Your task to perform on an android device: toggle location history Image 0: 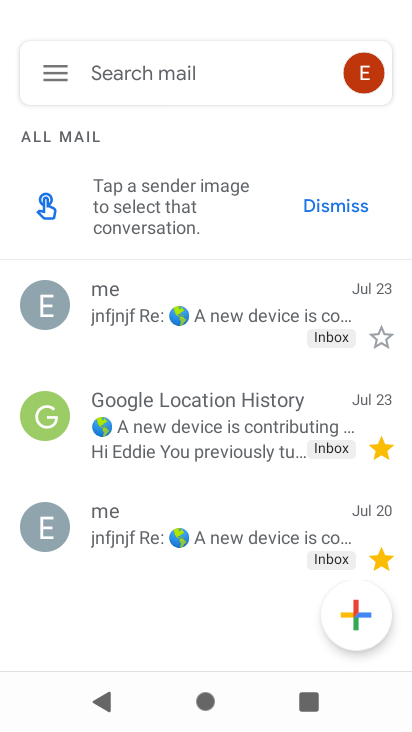
Step 0: press home button
Your task to perform on an android device: toggle location history Image 1: 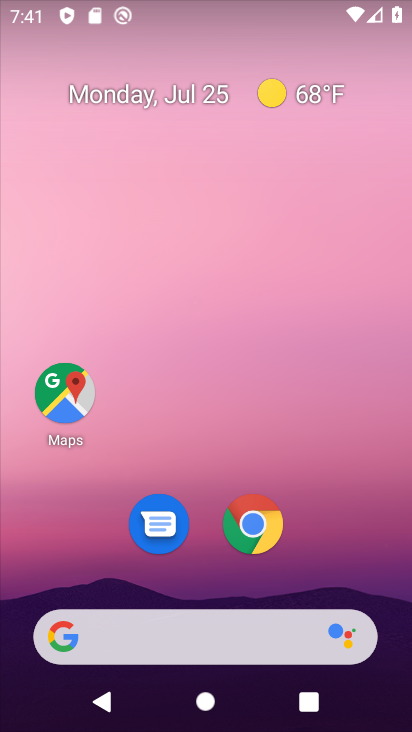
Step 1: drag from (311, 562) to (349, 81)
Your task to perform on an android device: toggle location history Image 2: 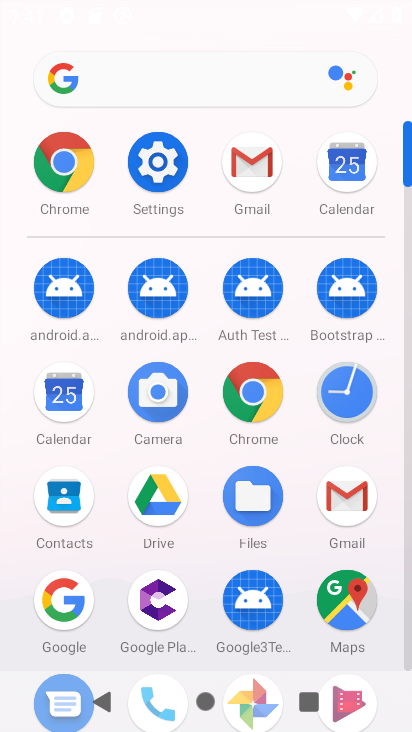
Step 2: click (171, 166)
Your task to perform on an android device: toggle location history Image 3: 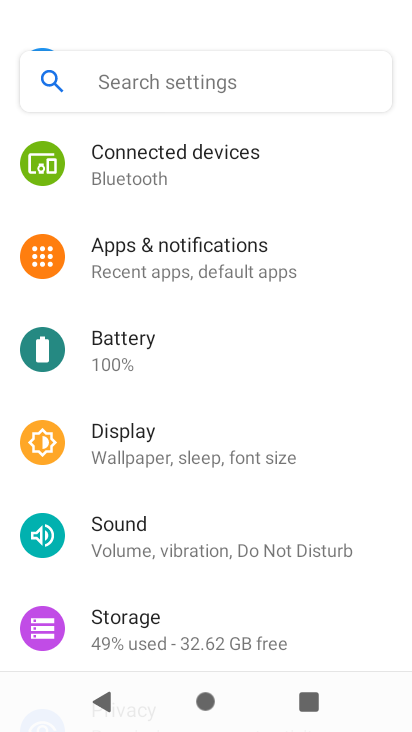
Step 3: drag from (222, 581) to (253, 258)
Your task to perform on an android device: toggle location history Image 4: 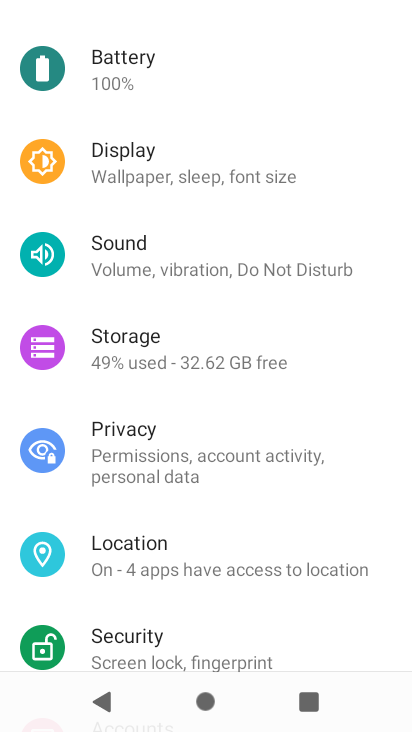
Step 4: click (192, 557)
Your task to perform on an android device: toggle location history Image 5: 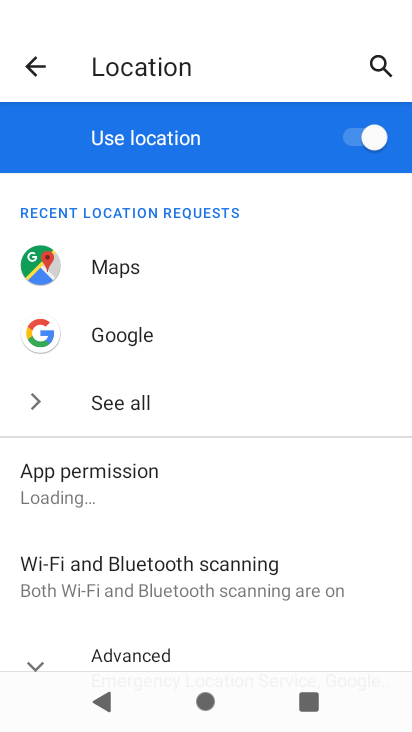
Step 5: drag from (182, 541) to (234, 229)
Your task to perform on an android device: toggle location history Image 6: 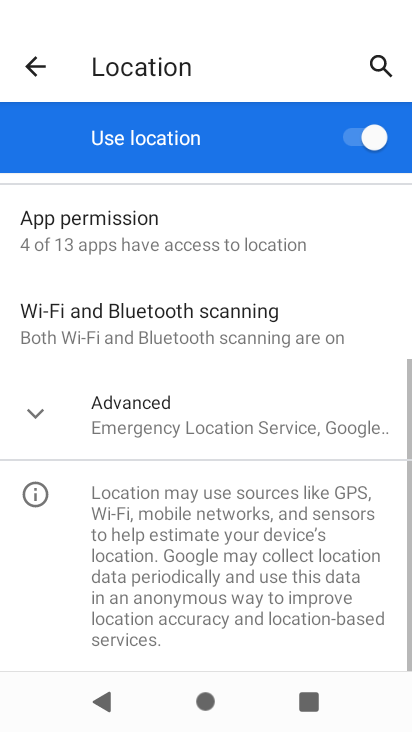
Step 6: click (36, 420)
Your task to perform on an android device: toggle location history Image 7: 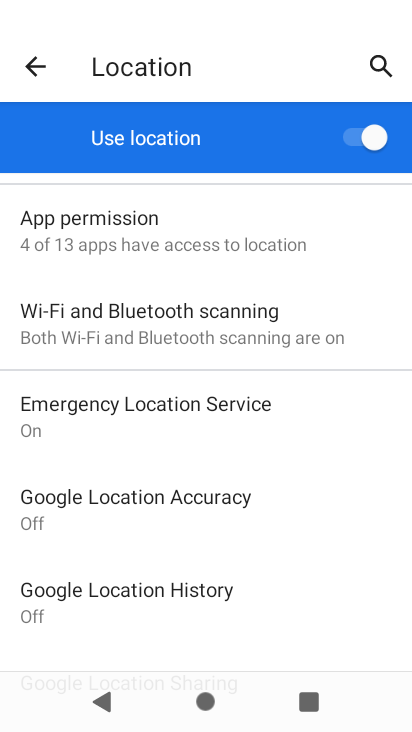
Step 7: click (171, 604)
Your task to perform on an android device: toggle location history Image 8: 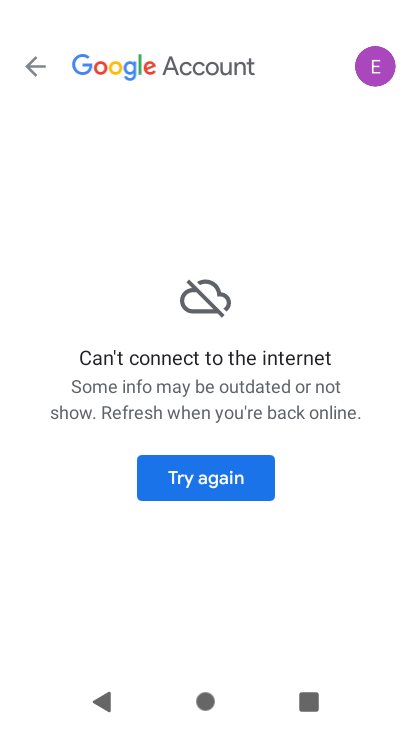
Step 8: click (228, 482)
Your task to perform on an android device: toggle location history Image 9: 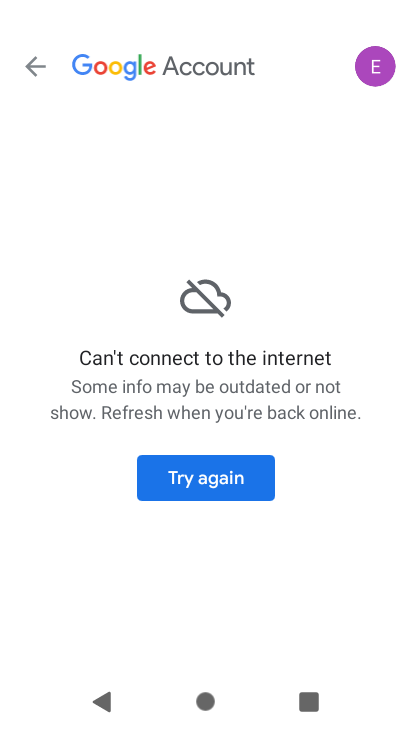
Step 9: task complete